Your task to perform on an android device: Open Android settings Image 0: 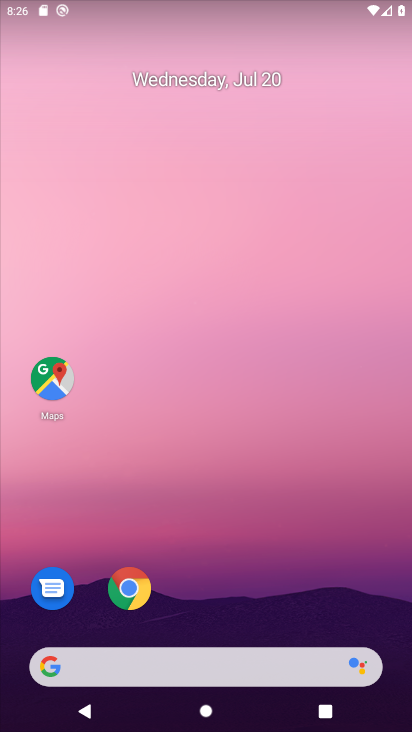
Step 0: press home button
Your task to perform on an android device: Open Android settings Image 1: 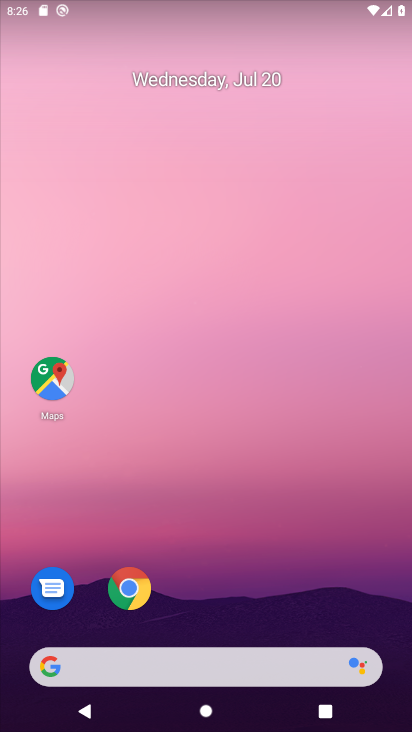
Step 1: drag from (210, 605) to (278, 41)
Your task to perform on an android device: Open Android settings Image 2: 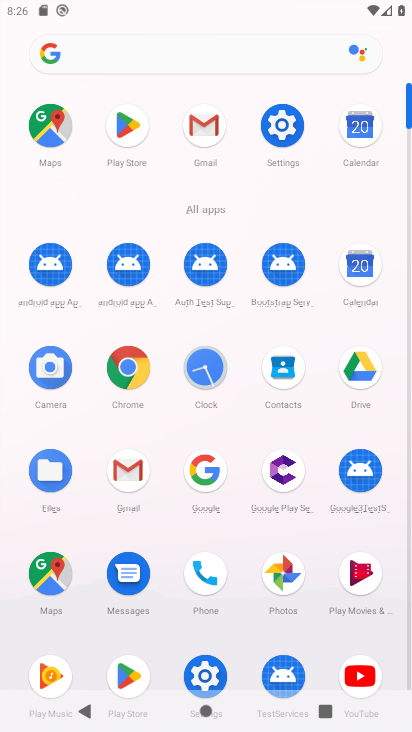
Step 2: click (276, 122)
Your task to perform on an android device: Open Android settings Image 3: 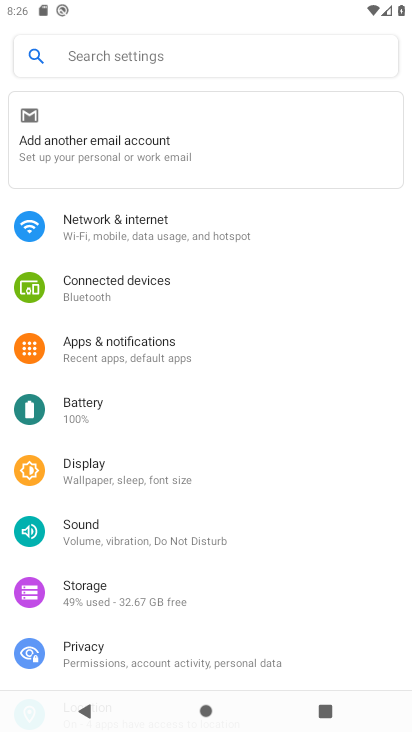
Step 3: drag from (198, 641) to (236, 82)
Your task to perform on an android device: Open Android settings Image 4: 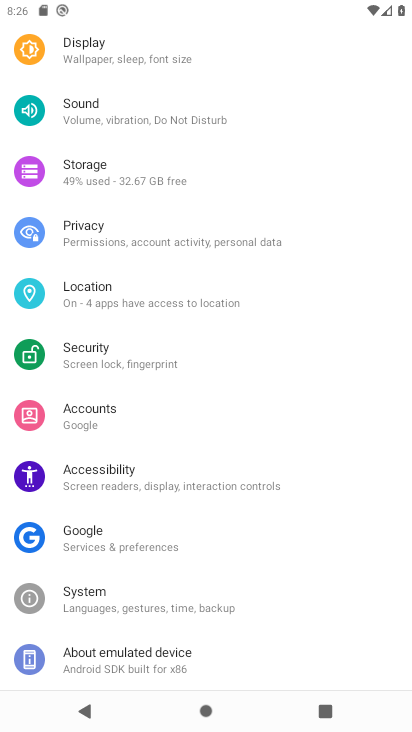
Step 4: click (209, 658)
Your task to perform on an android device: Open Android settings Image 5: 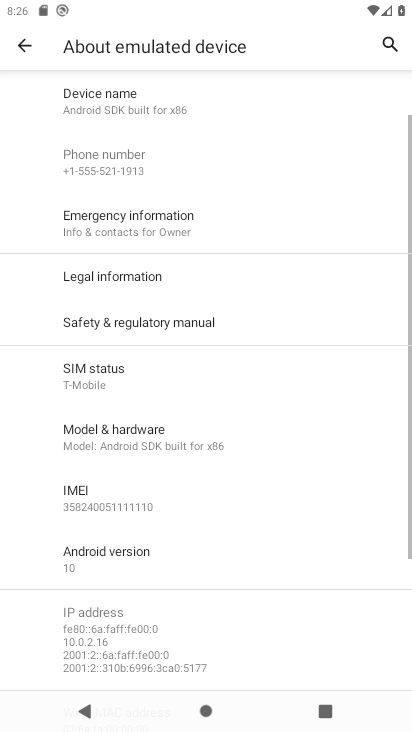
Step 5: click (156, 571)
Your task to perform on an android device: Open Android settings Image 6: 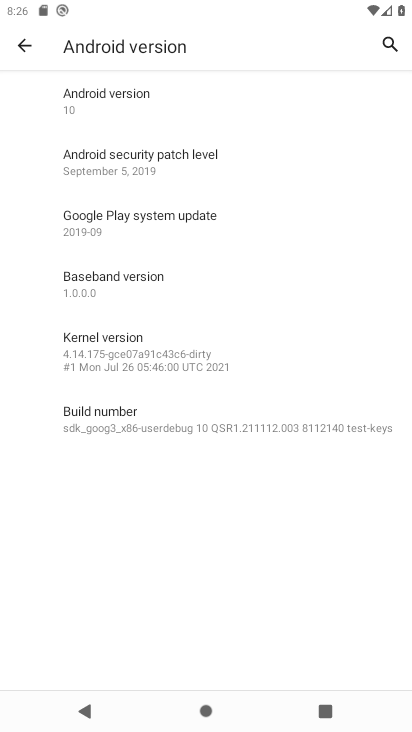
Step 6: task complete